Your task to perform on an android device: Open Chrome and go to settings Image 0: 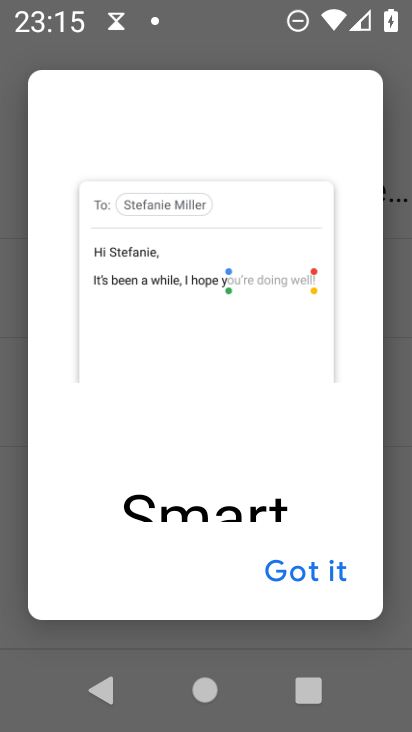
Step 0: press home button
Your task to perform on an android device: Open Chrome and go to settings Image 1: 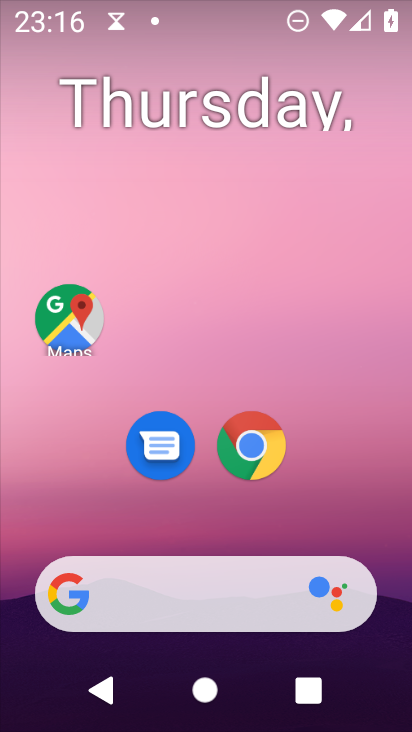
Step 1: click (251, 441)
Your task to perform on an android device: Open Chrome and go to settings Image 2: 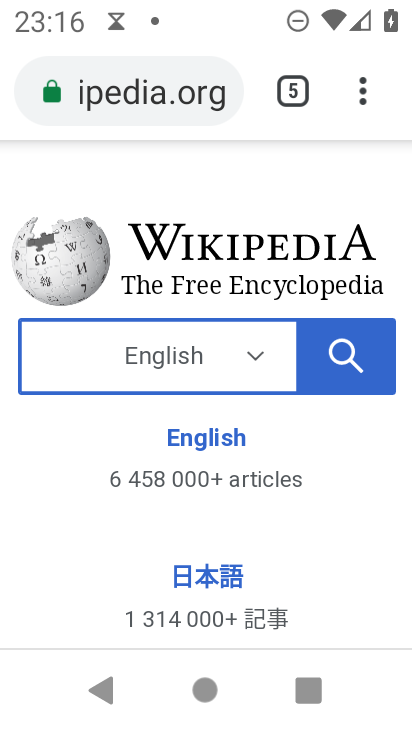
Step 2: click (361, 102)
Your task to perform on an android device: Open Chrome and go to settings Image 3: 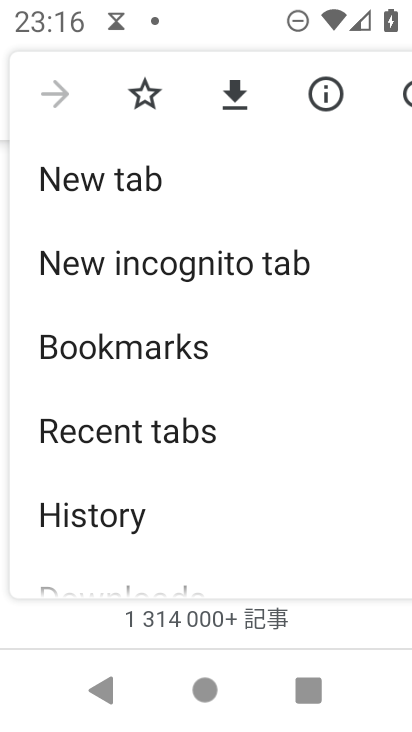
Step 3: drag from (114, 560) to (143, 196)
Your task to perform on an android device: Open Chrome and go to settings Image 4: 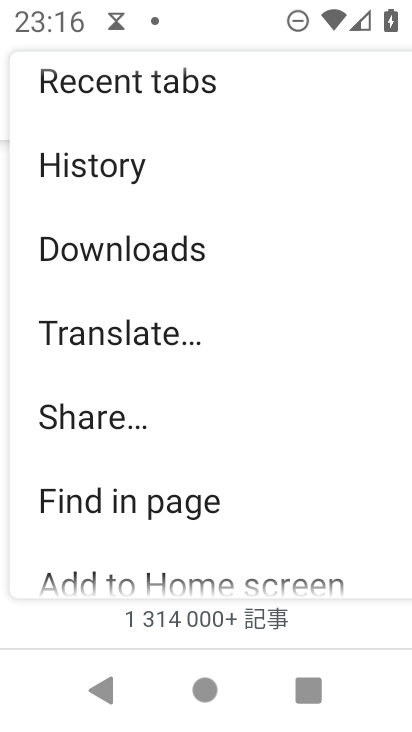
Step 4: drag from (115, 506) to (129, 210)
Your task to perform on an android device: Open Chrome and go to settings Image 5: 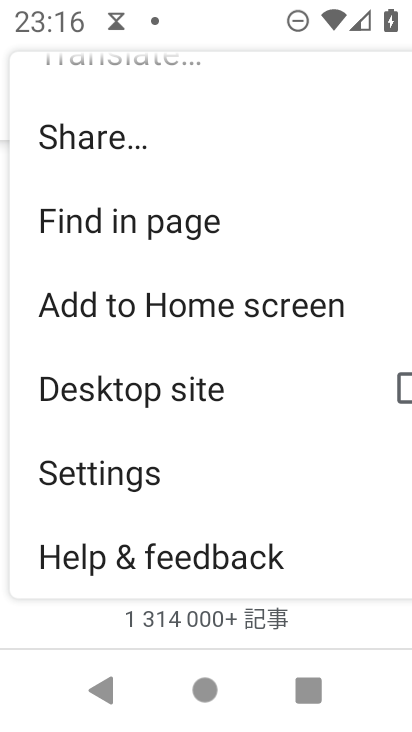
Step 5: click (124, 470)
Your task to perform on an android device: Open Chrome and go to settings Image 6: 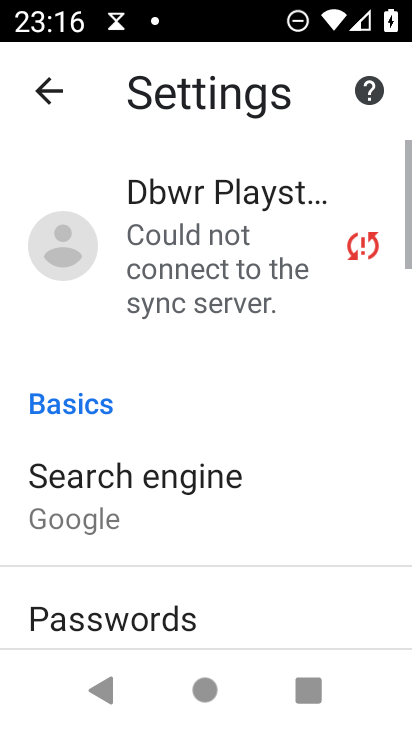
Step 6: drag from (212, 622) to (227, 255)
Your task to perform on an android device: Open Chrome and go to settings Image 7: 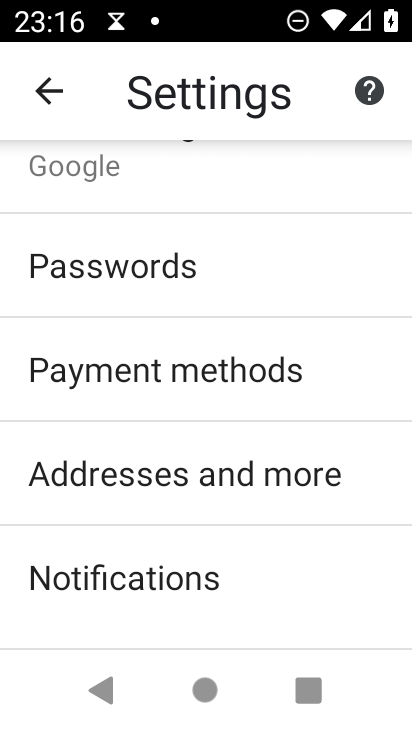
Step 7: drag from (234, 627) to (226, 267)
Your task to perform on an android device: Open Chrome and go to settings Image 8: 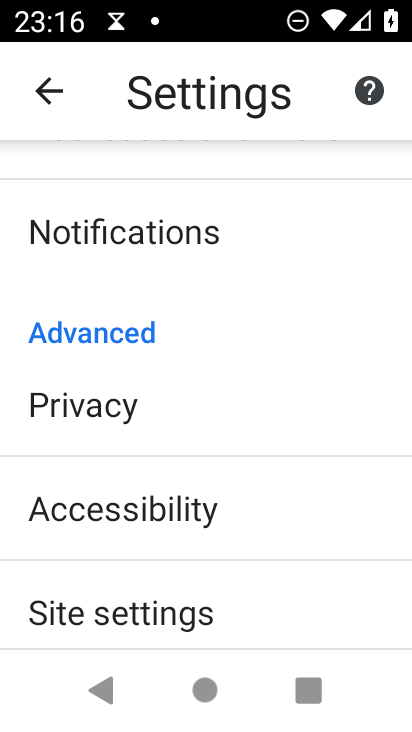
Step 8: click (109, 398)
Your task to perform on an android device: Open Chrome and go to settings Image 9: 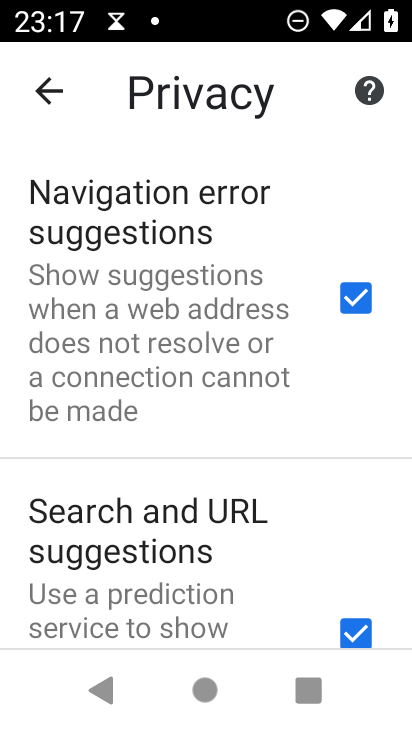
Step 9: press home button
Your task to perform on an android device: Open Chrome and go to settings Image 10: 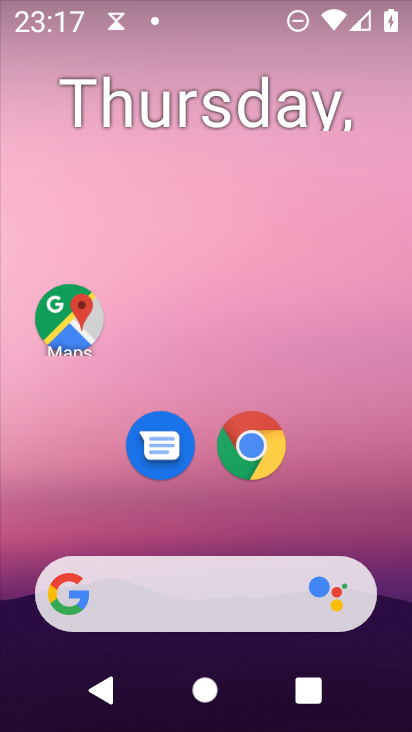
Step 10: drag from (221, 724) to (225, 108)
Your task to perform on an android device: Open Chrome and go to settings Image 11: 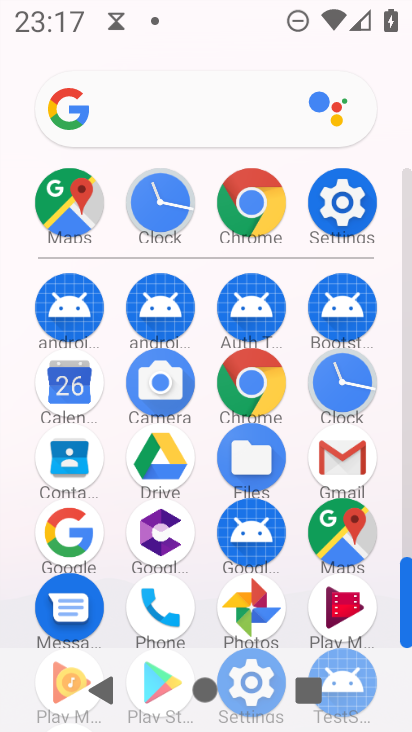
Step 11: click (252, 387)
Your task to perform on an android device: Open Chrome and go to settings Image 12: 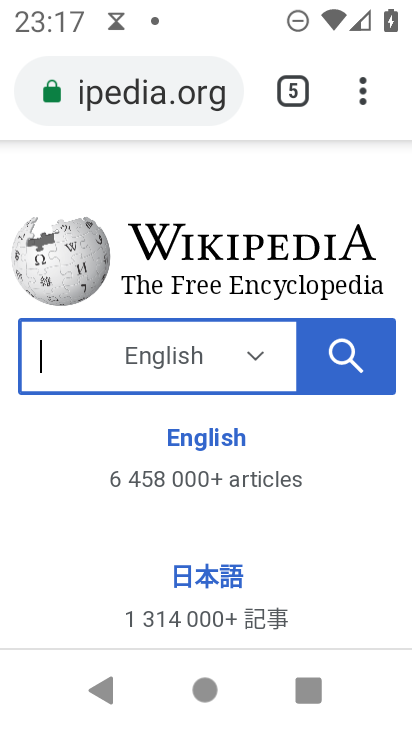
Step 12: click (362, 91)
Your task to perform on an android device: Open Chrome and go to settings Image 13: 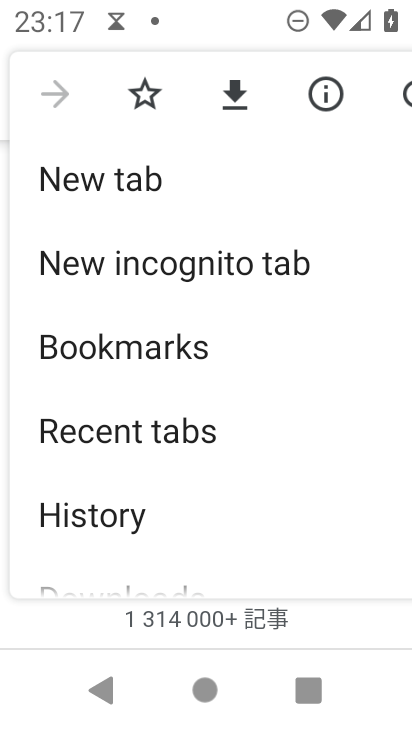
Step 13: drag from (162, 546) to (199, 154)
Your task to perform on an android device: Open Chrome and go to settings Image 14: 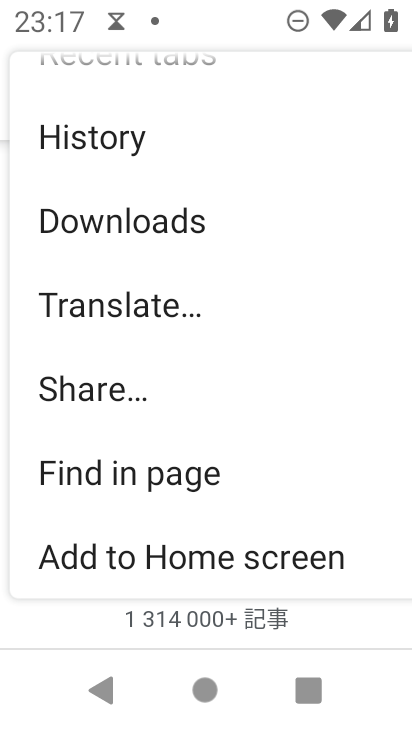
Step 14: drag from (130, 548) to (145, 148)
Your task to perform on an android device: Open Chrome and go to settings Image 15: 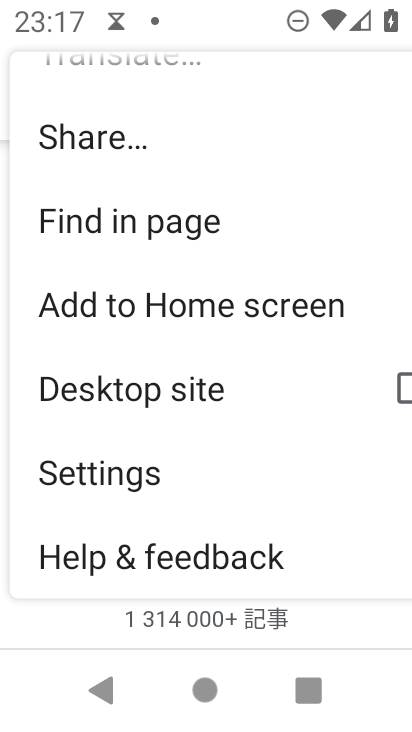
Step 15: click (99, 468)
Your task to perform on an android device: Open Chrome and go to settings Image 16: 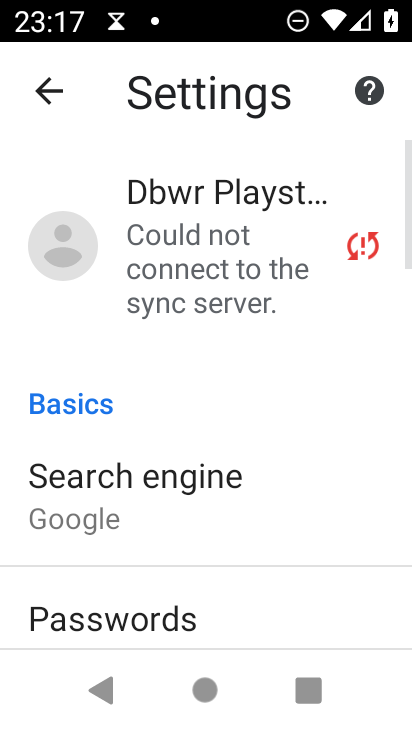
Step 16: task complete